Your task to perform on an android device: Open Amazon Image 0: 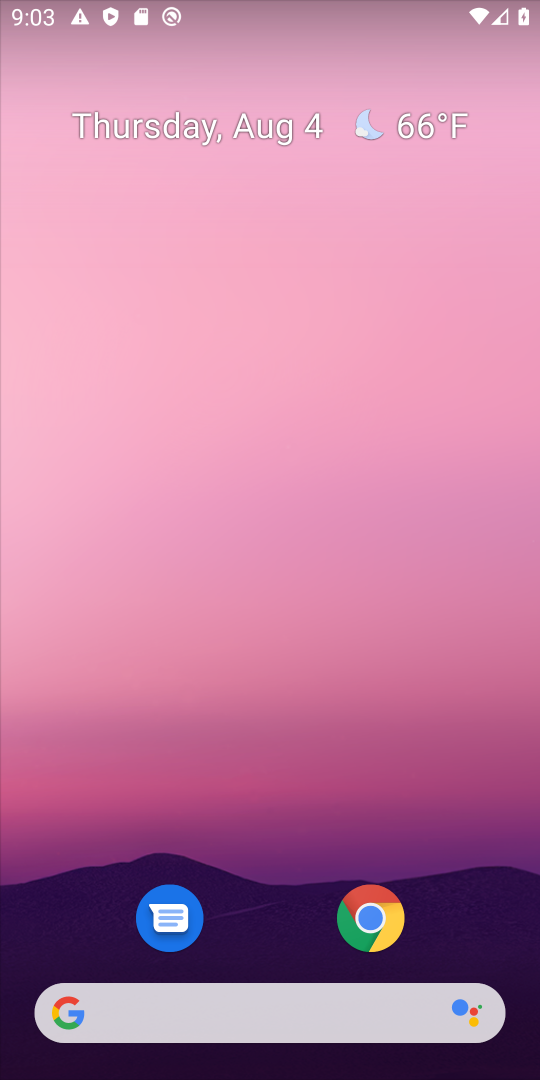
Step 0: press home button
Your task to perform on an android device: Open Amazon Image 1: 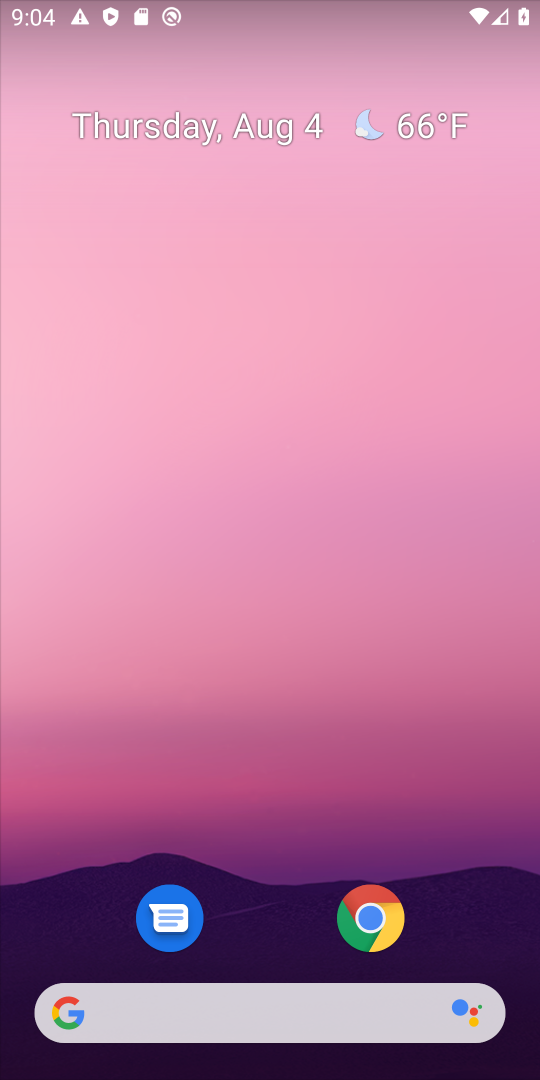
Step 1: click (363, 911)
Your task to perform on an android device: Open Amazon Image 2: 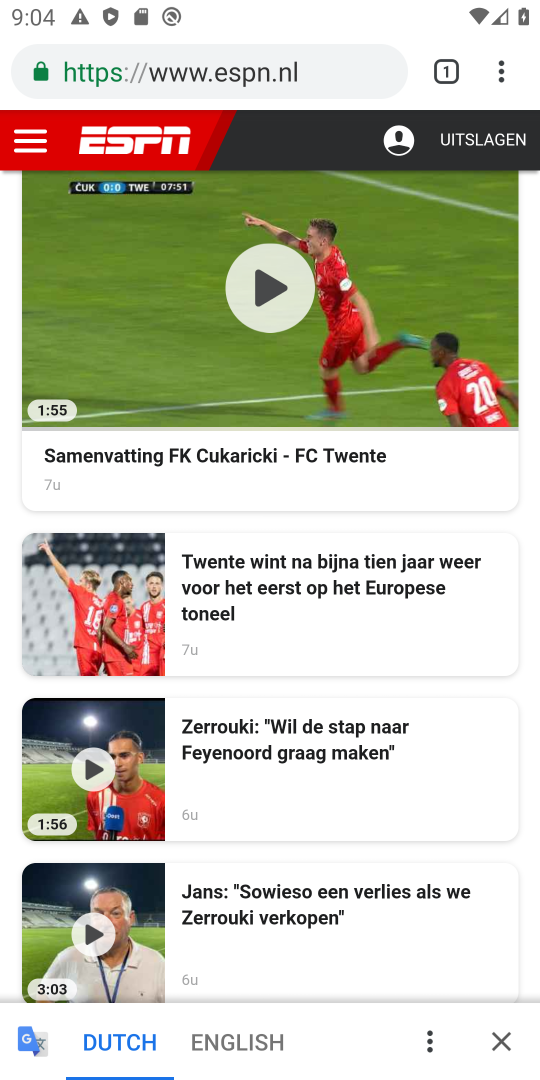
Step 2: click (441, 68)
Your task to perform on an android device: Open Amazon Image 3: 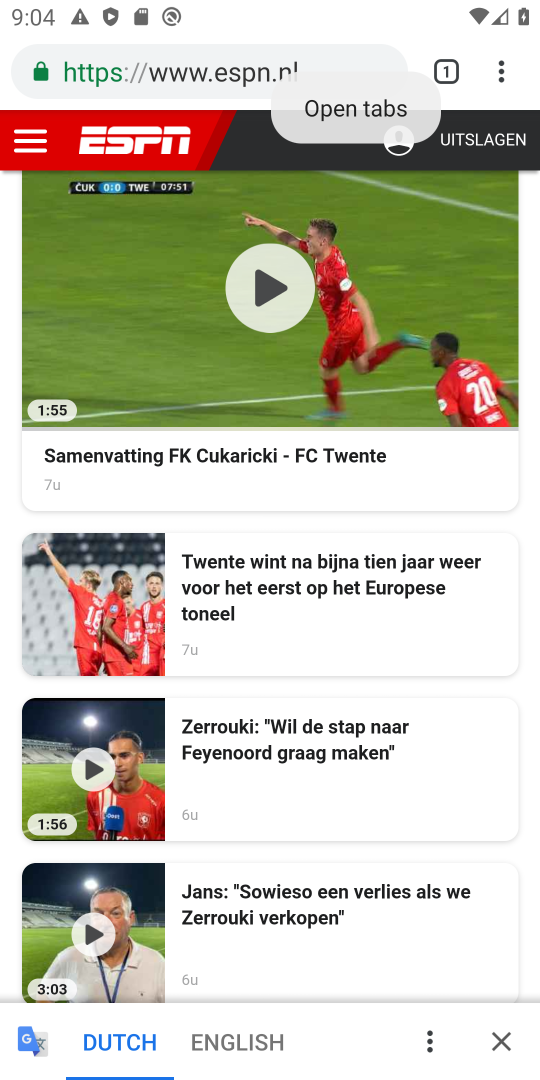
Step 3: click (450, 69)
Your task to perform on an android device: Open Amazon Image 4: 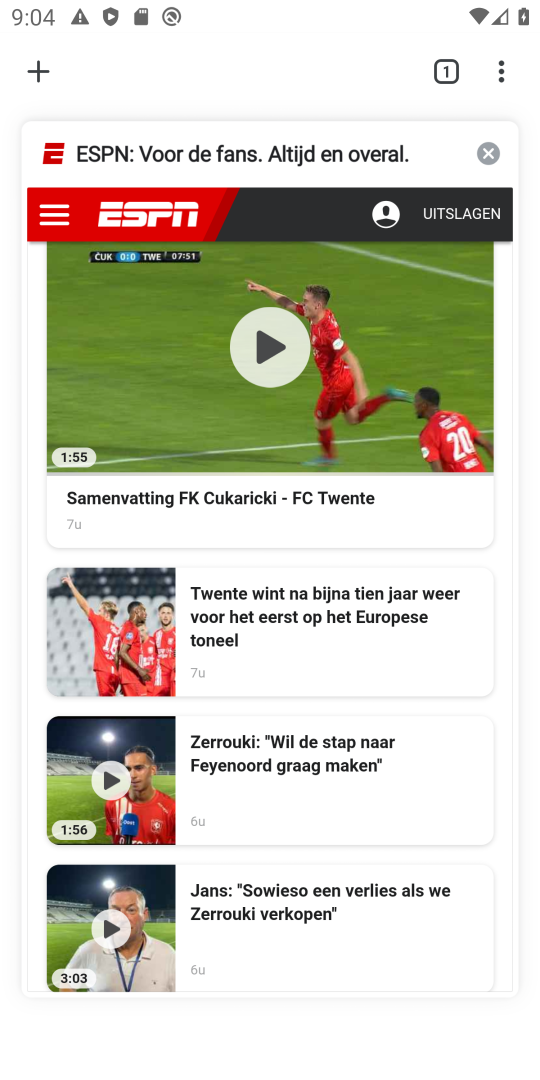
Step 4: click (37, 70)
Your task to perform on an android device: Open Amazon Image 5: 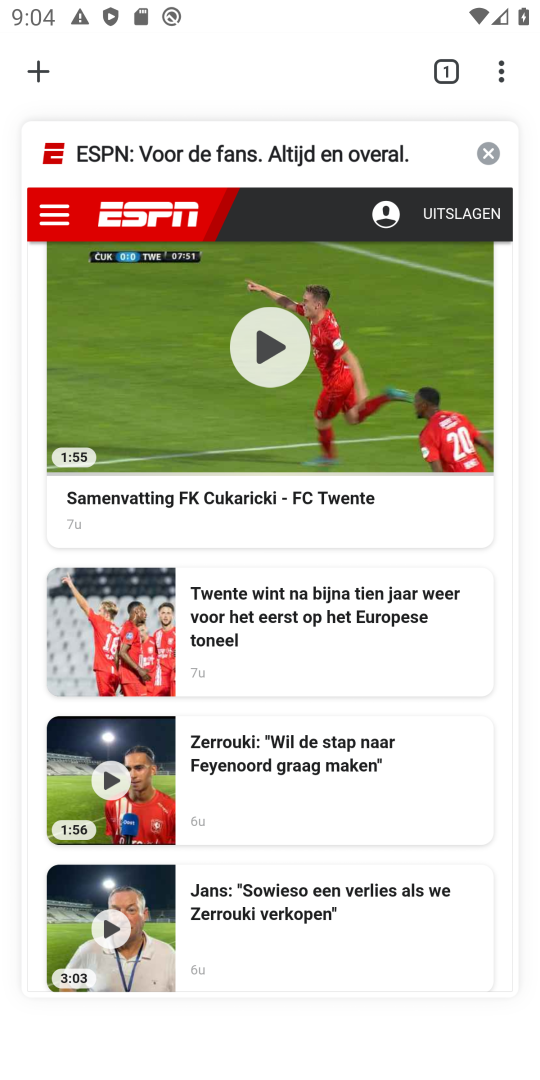
Step 5: click (36, 60)
Your task to perform on an android device: Open Amazon Image 6: 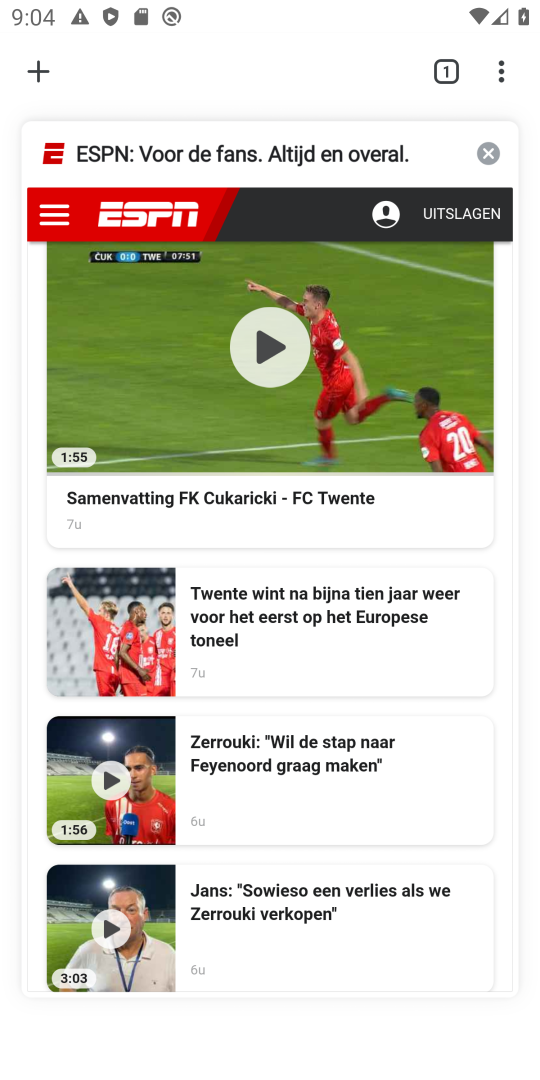
Step 6: click (44, 78)
Your task to perform on an android device: Open Amazon Image 7: 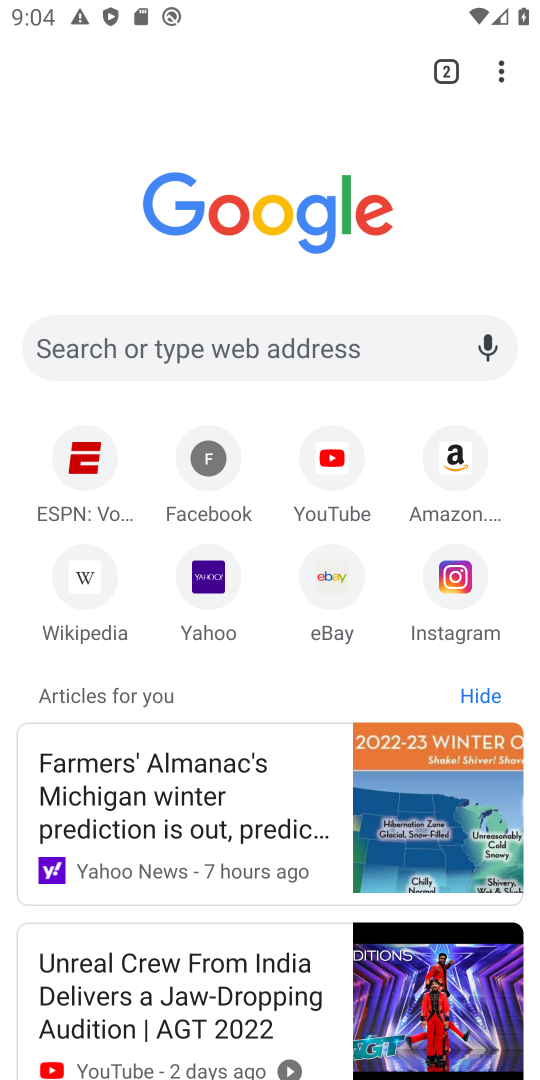
Step 7: click (448, 447)
Your task to perform on an android device: Open Amazon Image 8: 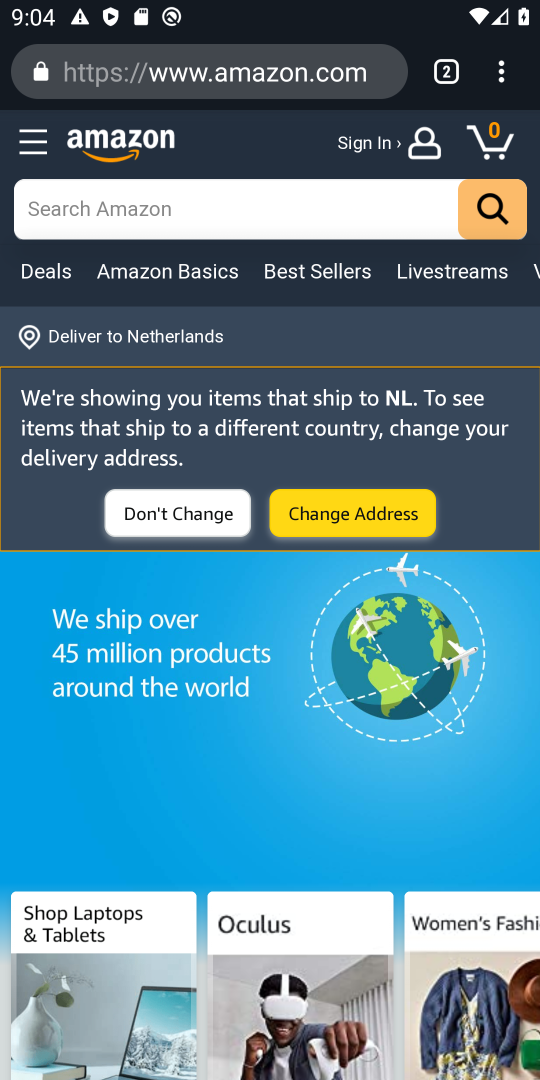
Step 8: click (165, 506)
Your task to perform on an android device: Open Amazon Image 9: 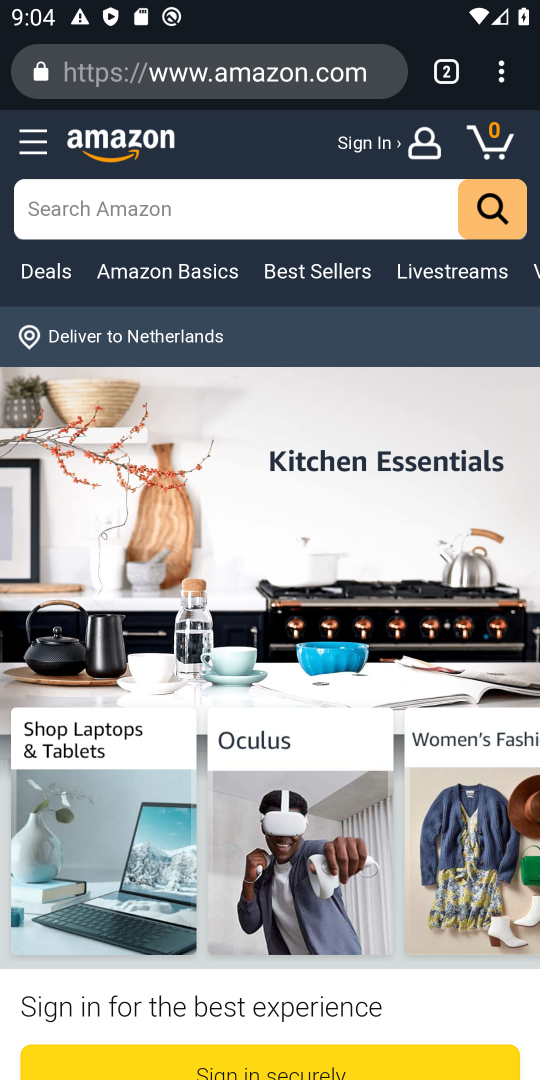
Step 9: task complete